Your task to perform on an android device: check data usage Image 0: 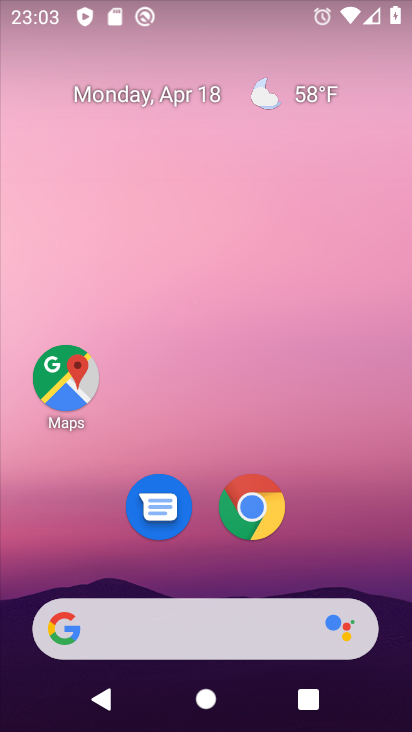
Step 0: drag from (261, 14) to (149, 673)
Your task to perform on an android device: check data usage Image 1: 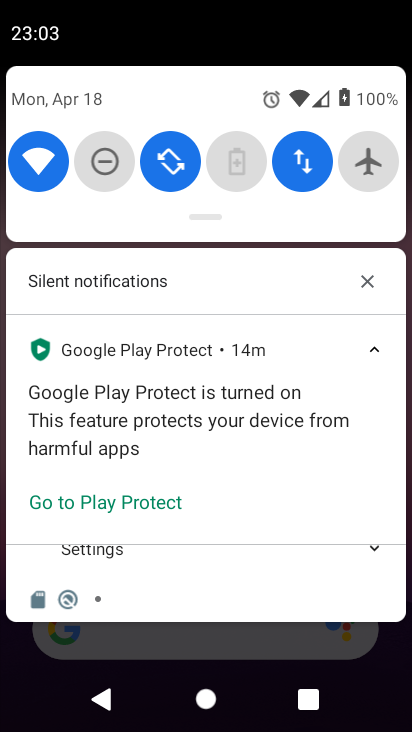
Step 1: drag from (207, 97) to (240, 481)
Your task to perform on an android device: check data usage Image 2: 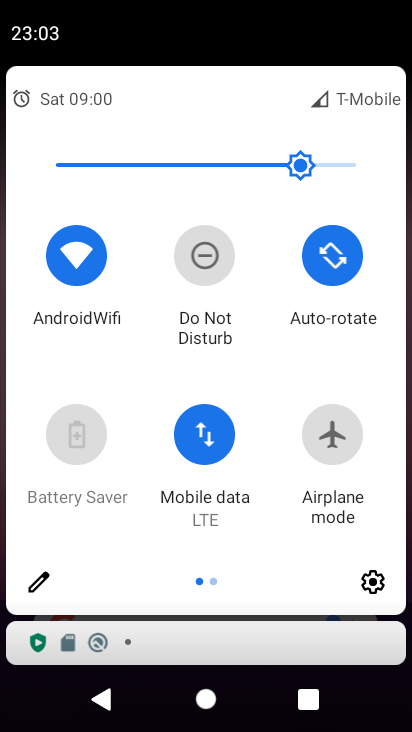
Step 2: click (371, 590)
Your task to perform on an android device: check data usage Image 3: 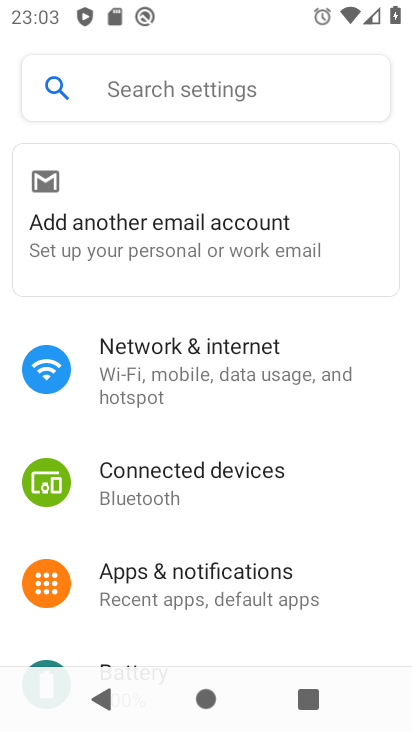
Step 3: click (262, 326)
Your task to perform on an android device: check data usage Image 4: 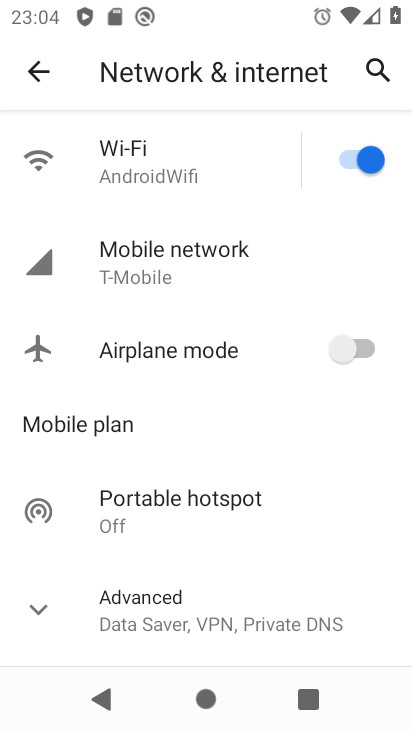
Step 4: click (192, 266)
Your task to perform on an android device: check data usage Image 5: 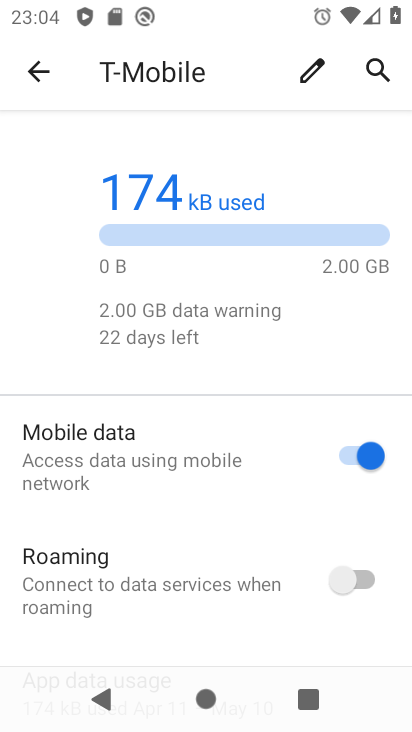
Step 5: task complete